Your task to perform on an android device: Is it going to rain this weekend? Image 0: 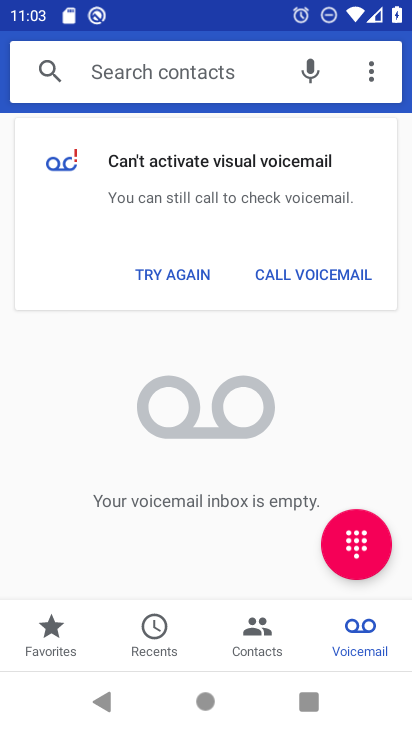
Step 0: press home button
Your task to perform on an android device: Is it going to rain this weekend? Image 1: 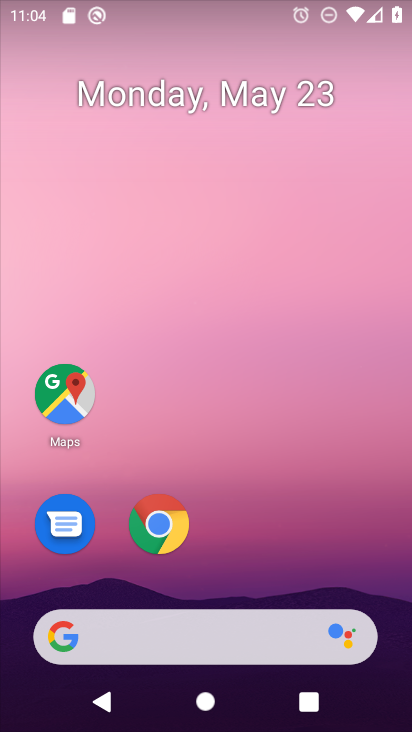
Step 1: drag from (243, 590) to (233, 168)
Your task to perform on an android device: Is it going to rain this weekend? Image 2: 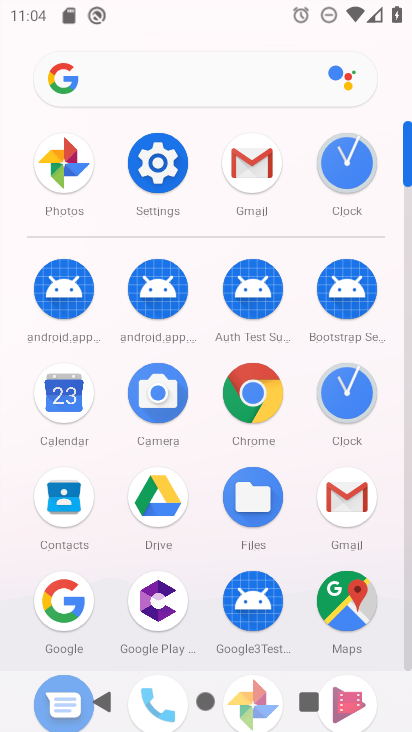
Step 2: drag from (195, 539) to (200, 348)
Your task to perform on an android device: Is it going to rain this weekend? Image 3: 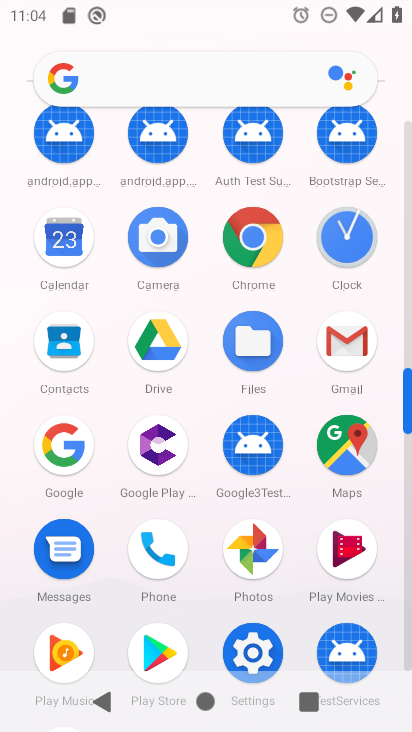
Step 3: click (51, 453)
Your task to perform on an android device: Is it going to rain this weekend? Image 4: 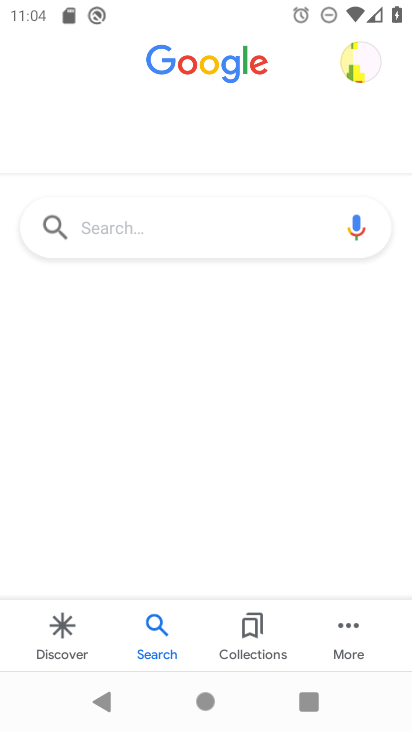
Step 4: click (181, 215)
Your task to perform on an android device: Is it going to rain this weekend? Image 5: 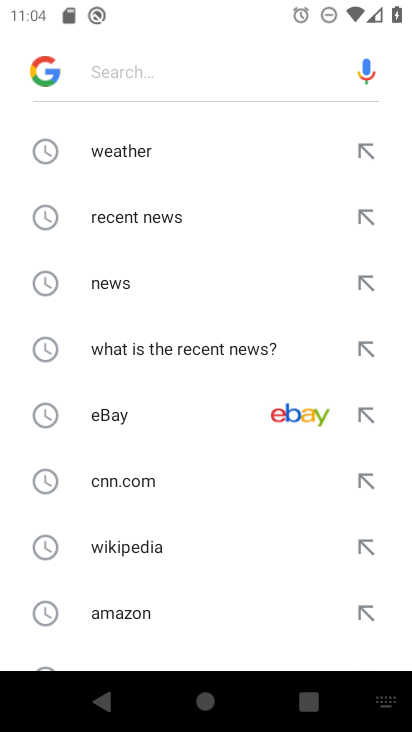
Step 5: click (160, 149)
Your task to perform on an android device: Is it going to rain this weekend? Image 6: 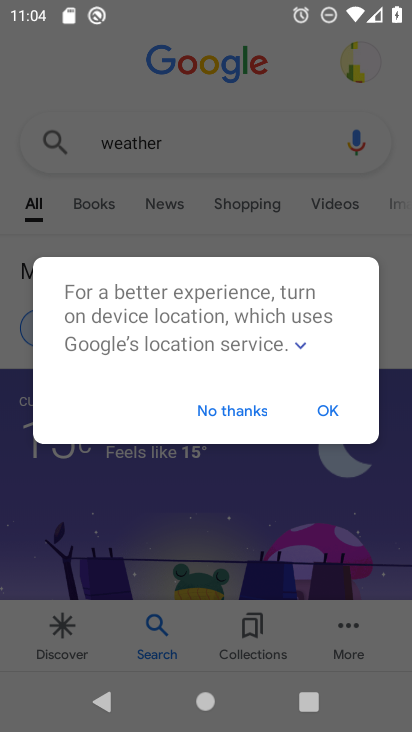
Step 6: click (223, 415)
Your task to perform on an android device: Is it going to rain this weekend? Image 7: 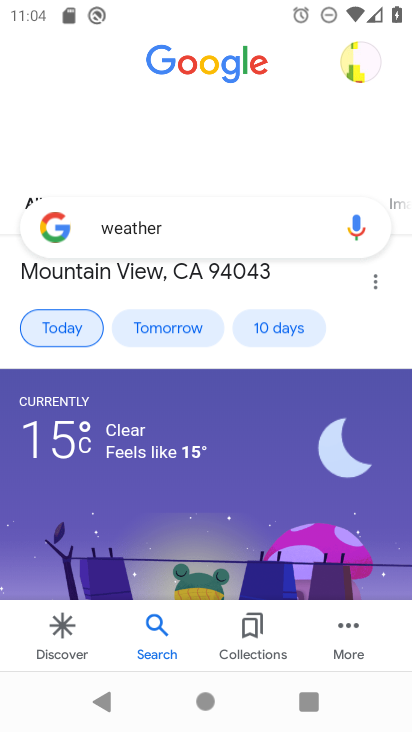
Step 7: click (267, 317)
Your task to perform on an android device: Is it going to rain this weekend? Image 8: 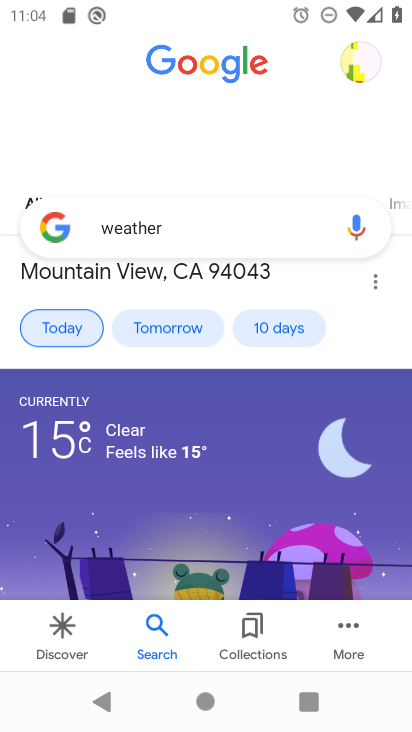
Step 8: click (262, 322)
Your task to perform on an android device: Is it going to rain this weekend? Image 9: 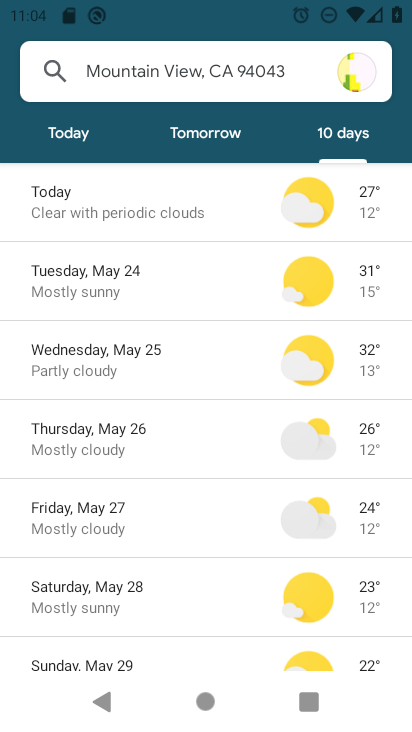
Step 9: task complete